Your task to perform on an android device: add a contact Image 0: 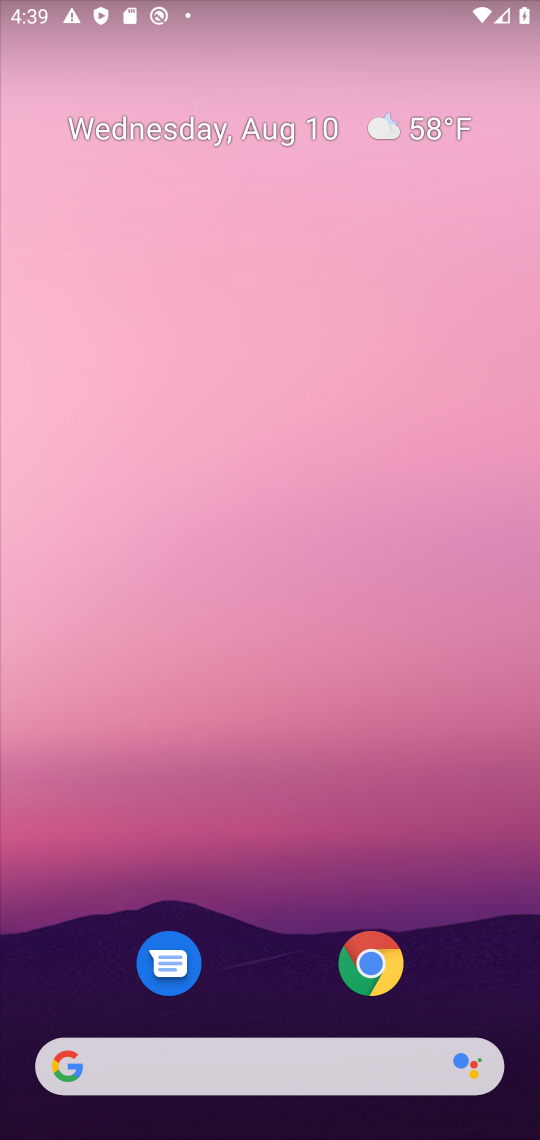
Step 0: drag from (262, 950) to (322, 7)
Your task to perform on an android device: add a contact Image 1: 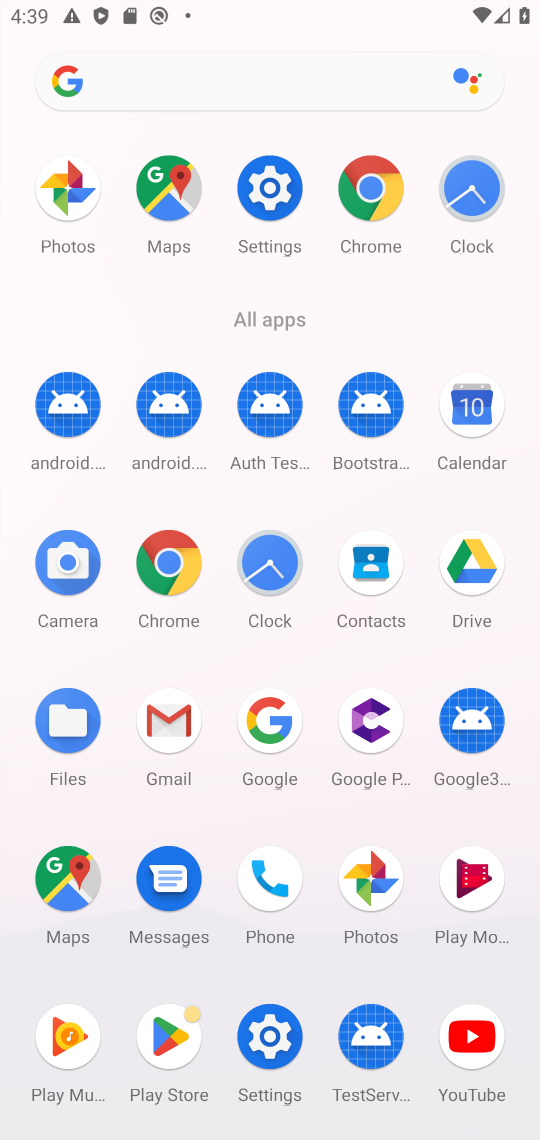
Step 1: click (378, 550)
Your task to perform on an android device: add a contact Image 2: 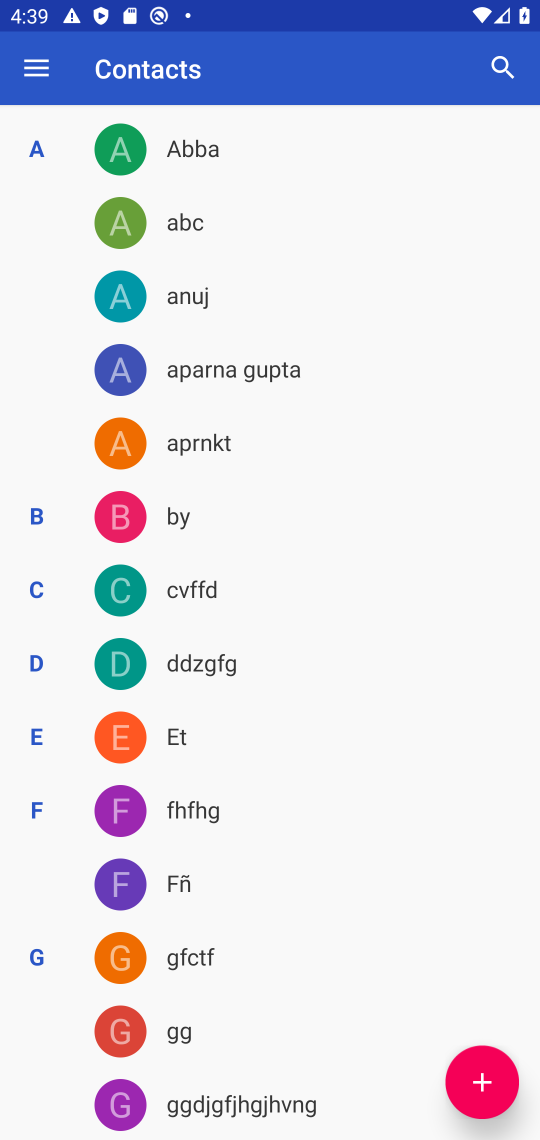
Step 2: click (481, 1066)
Your task to perform on an android device: add a contact Image 3: 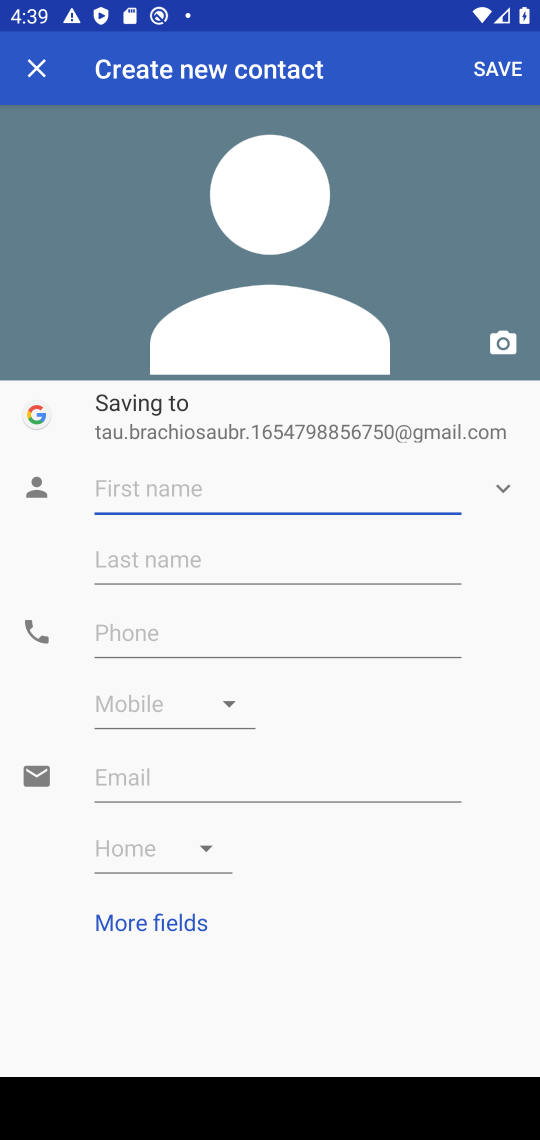
Step 3: type "bbbbn"
Your task to perform on an android device: add a contact Image 4: 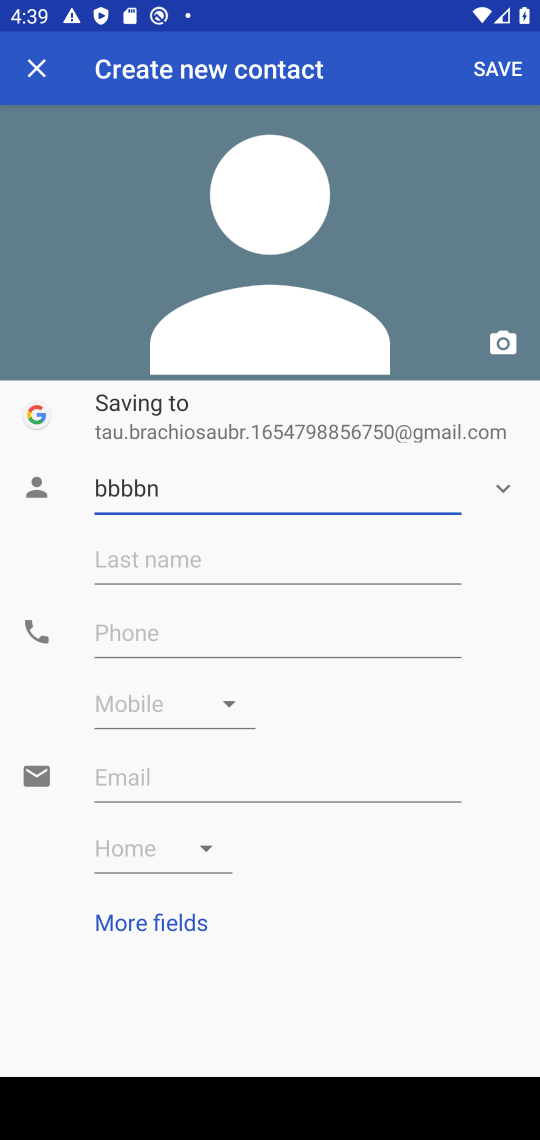
Step 4: click (265, 628)
Your task to perform on an android device: add a contact Image 5: 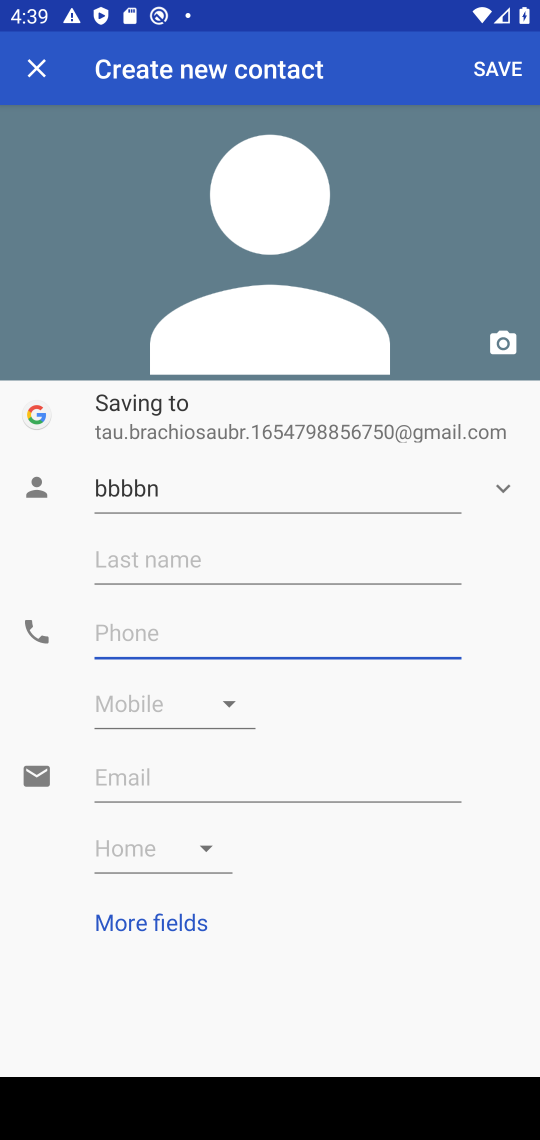
Step 5: type "8794"
Your task to perform on an android device: add a contact Image 6: 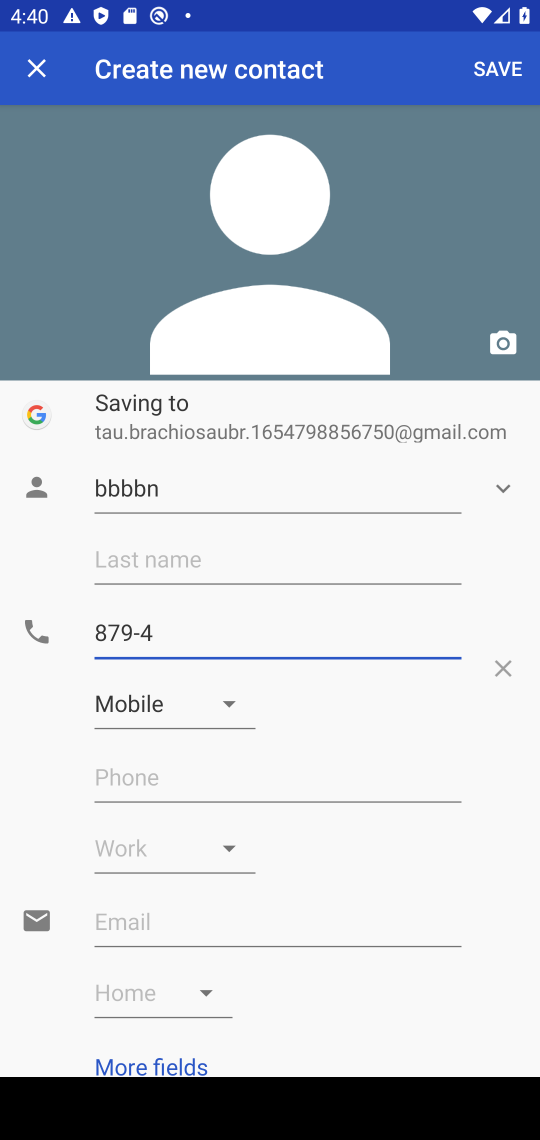
Step 6: click (493, 71)
Your task to perform on an android device: add a contact Image 7: 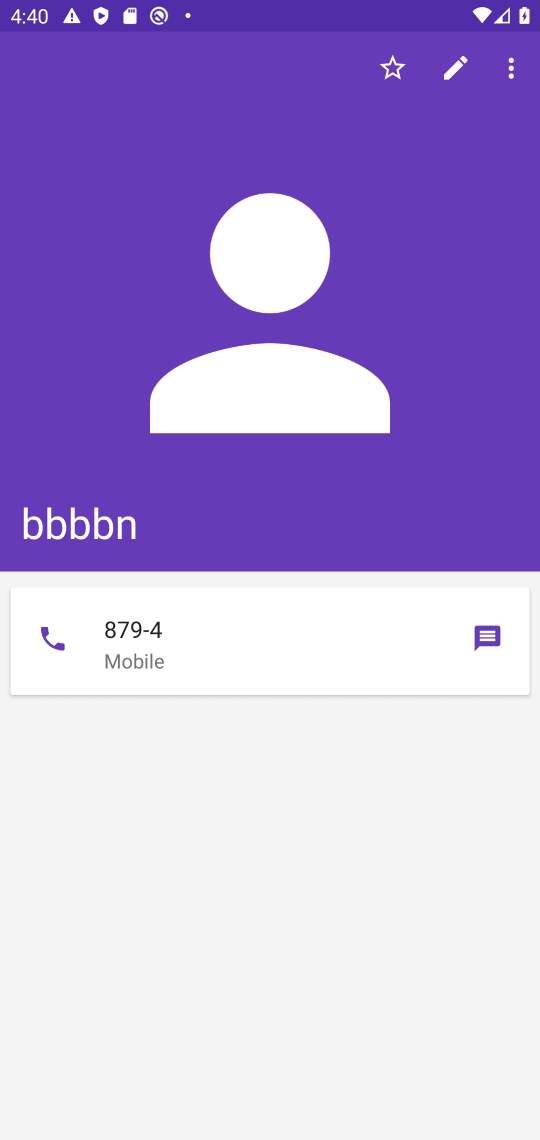
Step 7: task complete